Your task to perform on an android device: Open calendar and show me the first week of next month Image 0: 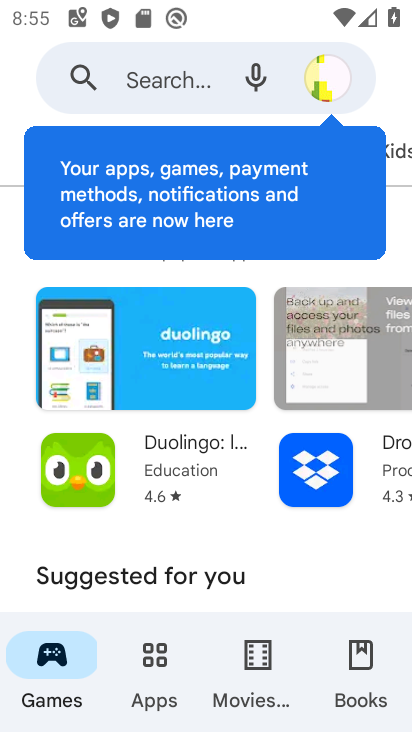
Step 0: press home button
Your task to perform on an android device: Open calendar and show me the first week of next month Image 1: 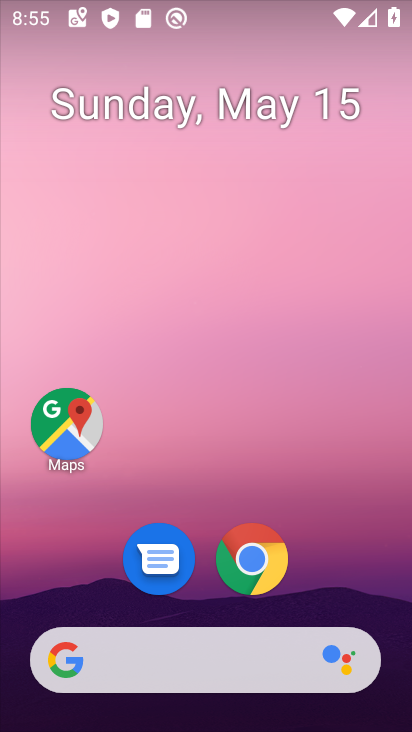
Step 1: drag from (346, 564) to (268, 0)
Your task to perform on an android device: Open calendar and show me the first week of next month Image 2: 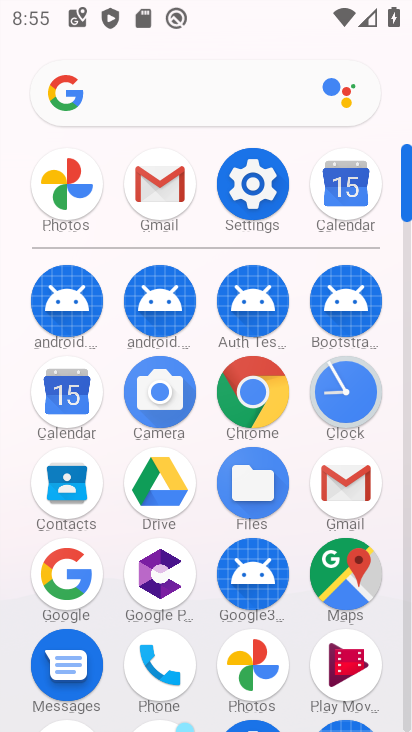
Step 2: click (77, 400)
Your task to perform on an android device: Open calendar and show me the first week of next month Image 3: 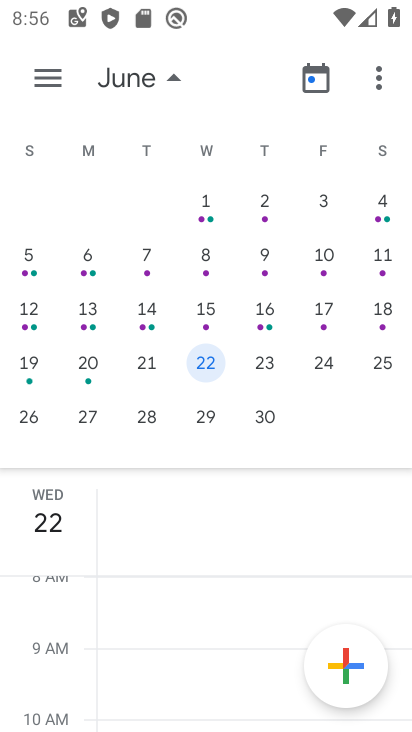
Step 3: click (216, 278)
Your task to perform on an android device: Open calendar and show me the first week of next month Image 4: 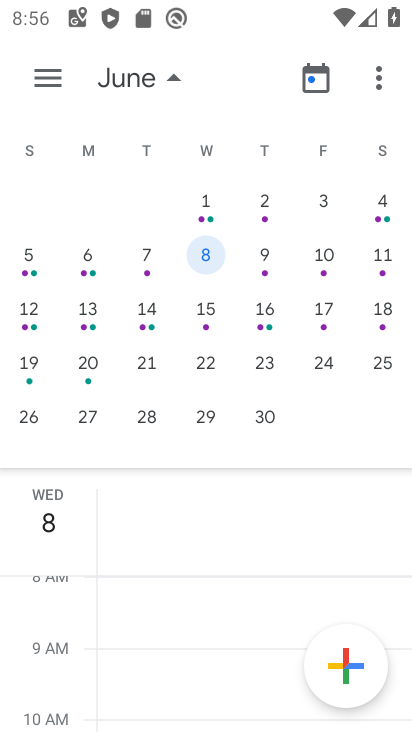
Step 4: task complete